Your task to perform on an android device: turn on location history Image 0: 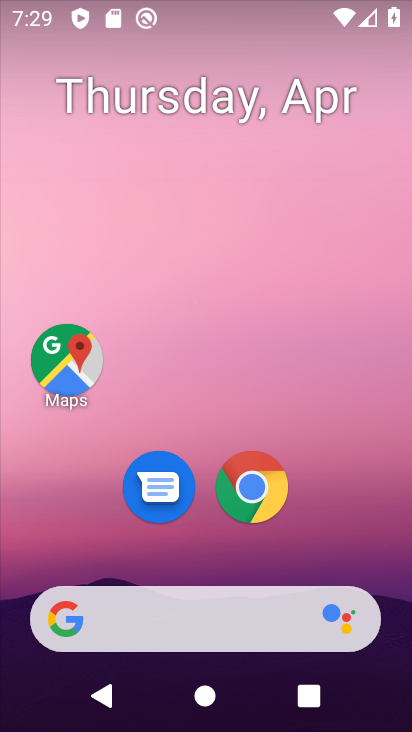
Step 0: drag from (376, 545) to (308, 107)
Your task to perform on an android device: turn on location history Image 1: 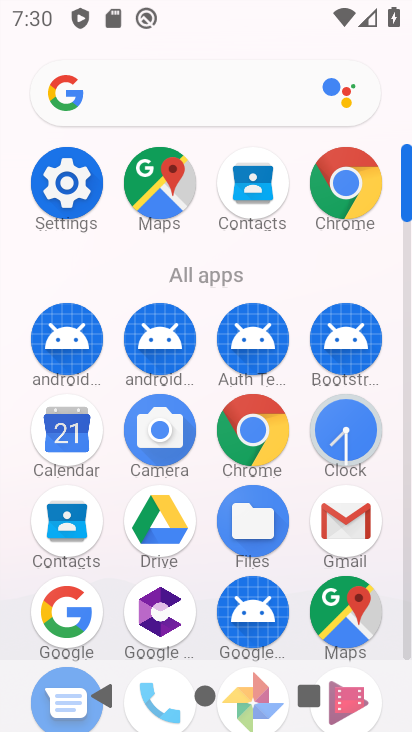
Step 1: click (82, 177)
Your task to perform on an android device: turn on location history Image 2: 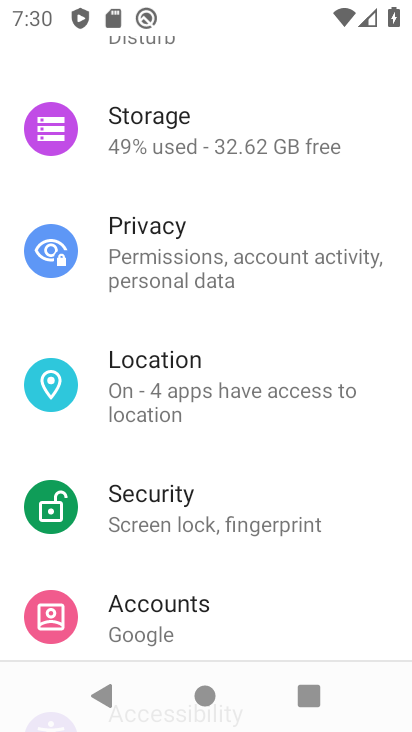
Step 2: click (185, 391)
Your task to perform on an android device: turn on location history Image 3: 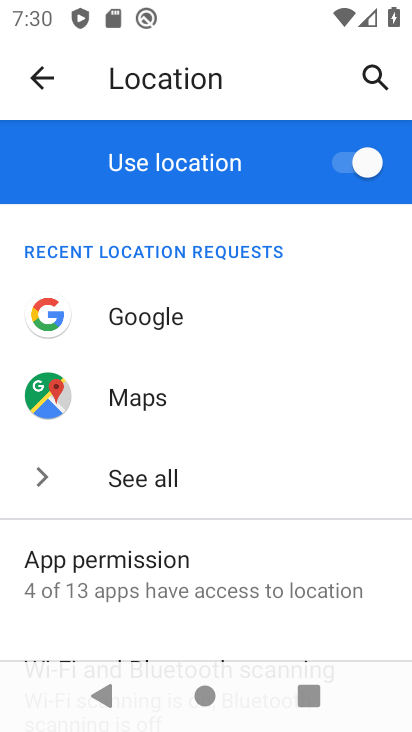
Step 3: drag from (216, 590) to (183, 246)
Your task to perform on an android device: turn on location history Image 4: 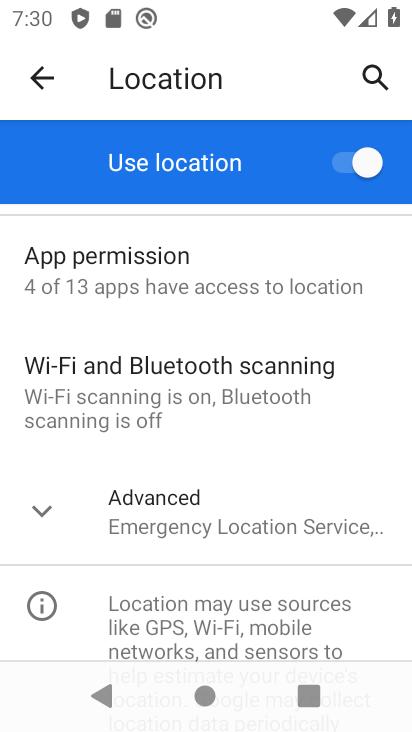
Step 4: click (184, 507)
Your task to perform on an android device: turn on location history Image 5: 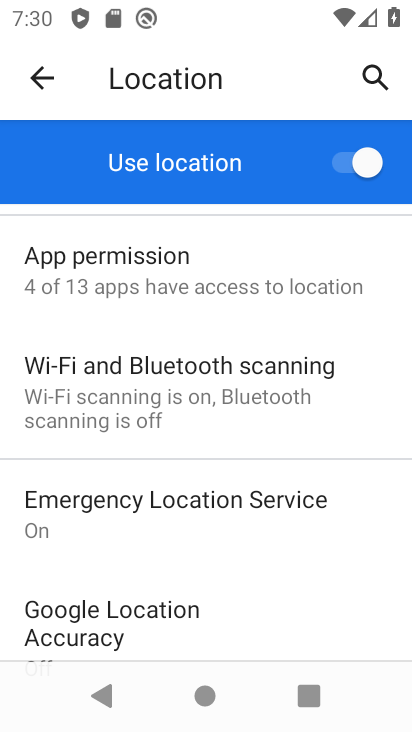
Step 5: drag from (149, 579) to (137, 379)
Your task to perform on an android device: turn on location history Image 6: 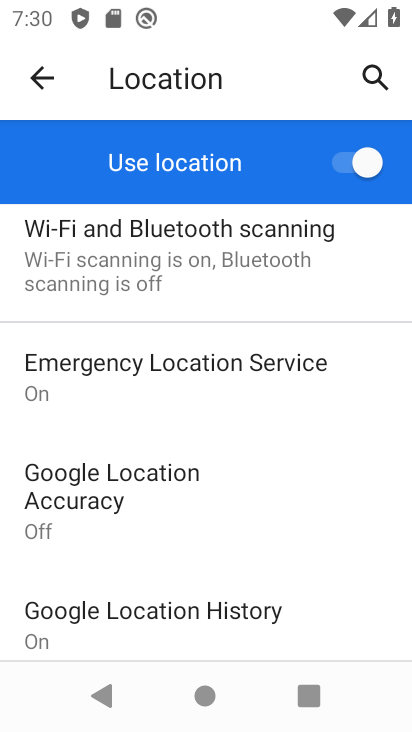
Step 6: click (146, 625)
Your task to perform on an android device: turn on location history Image 7: 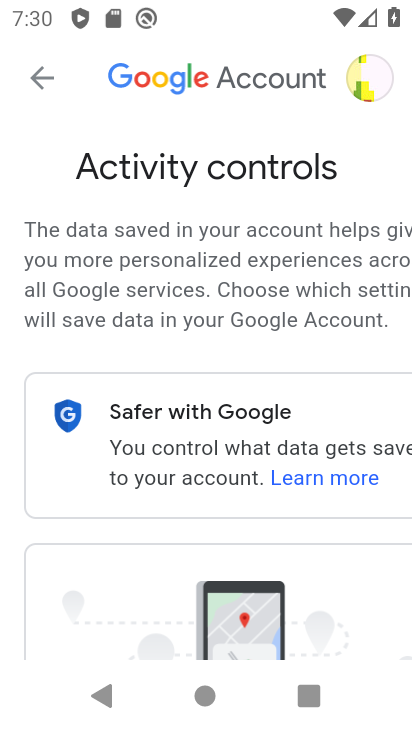
Step 7: drag from (367, 627) to (149, 131)
Your task to perform on an android device: turn on location history Image 8: 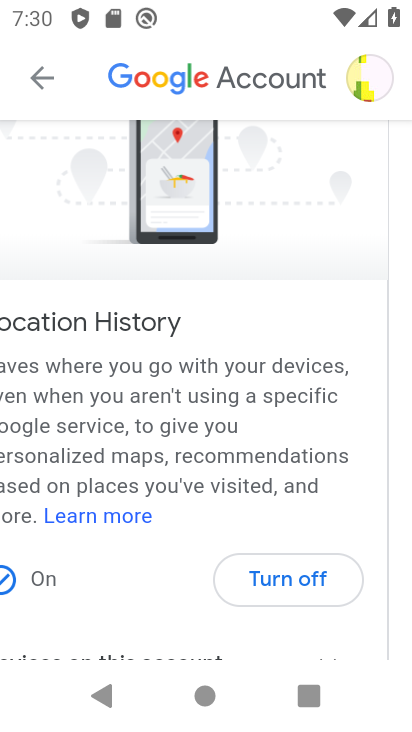
Step 8: click (288, 569)
Your task to perform on an android device: turn on location history Image 9: 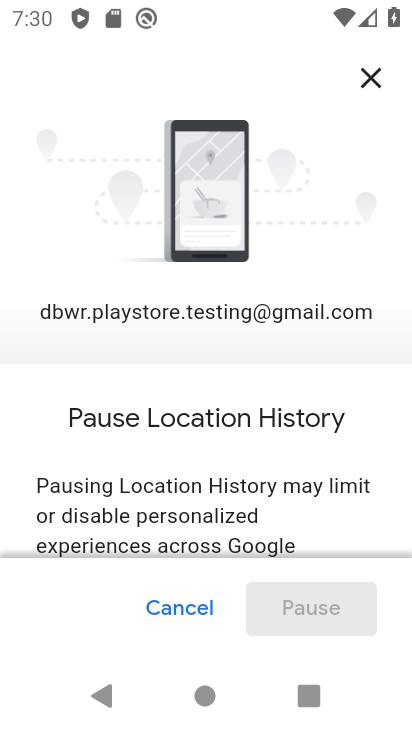
Step 9: task complete